Your task to perform on an android device: Open Chrome and go to settings Image 0: 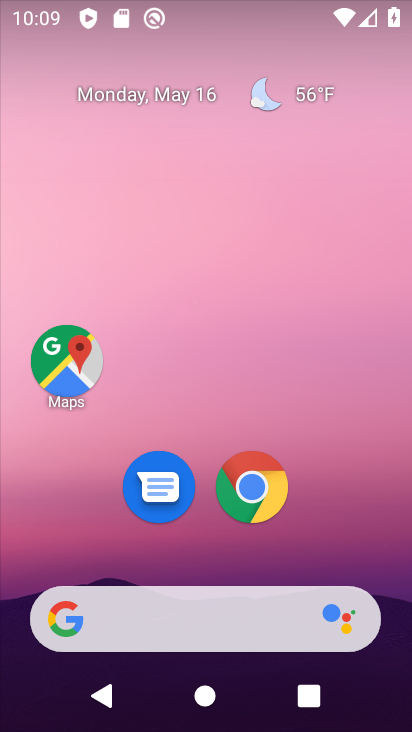
Step 0: click (256, 495)
Your task to perform on an android device: Open Chrome and go to settings Image 1: 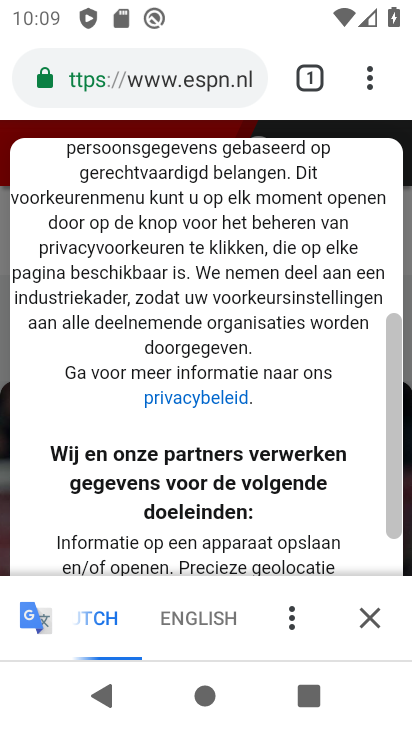
Step 1: click (373, 80)
Your task to perform on an android device: Open Chrome and go to settings Image 2: 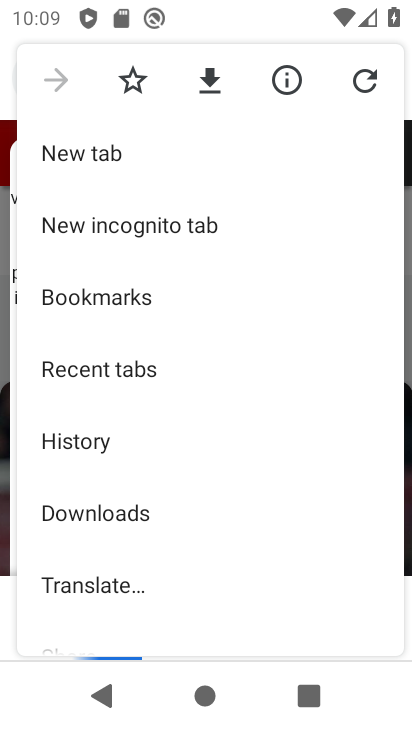
Step 2: click (124, 408)
Your task to perform on an android device: Open Chrome and go to settings Image 3: 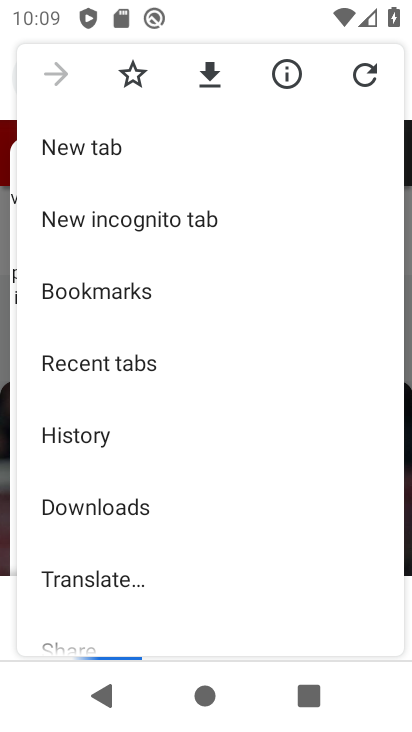
Step 3: drag from (114, 522) to (123, 448)
Your task to perform on an android device: Open Chrome and go to settings Image 4: 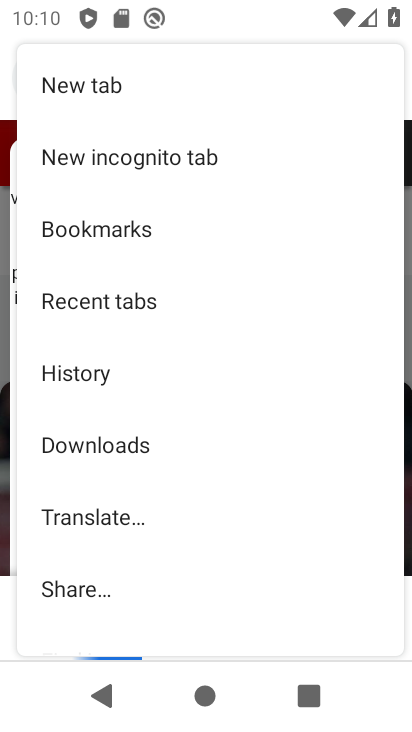
Step 4: drag from (219, 472) to (276, 284)
Your task to perform on an android device: Open Chrome and go to settings Image 5: 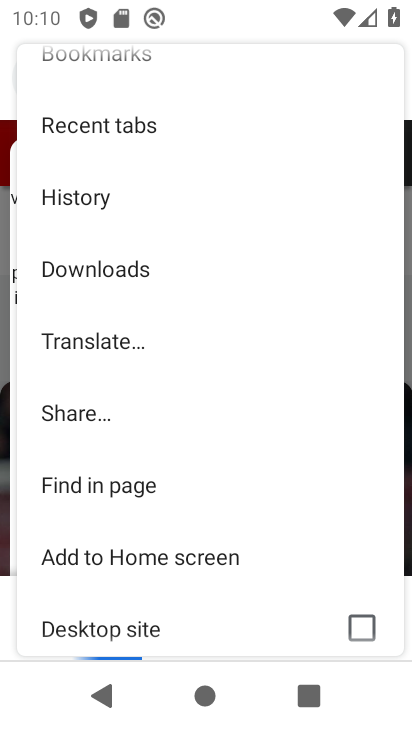
Step 5: drag from (151, 513) to (187, 320)
Your task to perform on an android device: Open Chrome and go to settings Image 6: 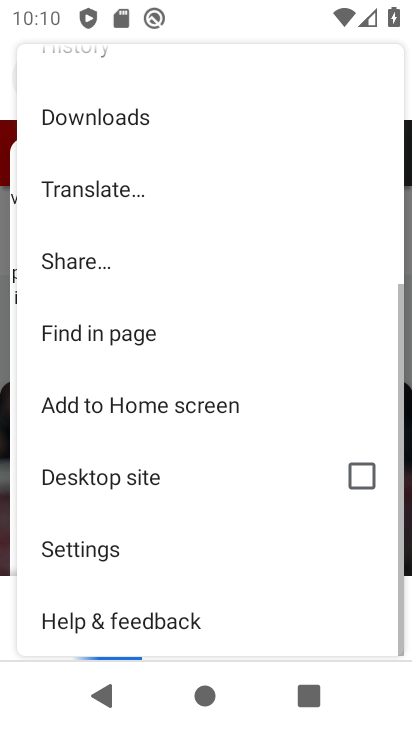
Step 6: click (119, 552)
Your task to perform on an android device: Open Chrome and go to settings Image 7: 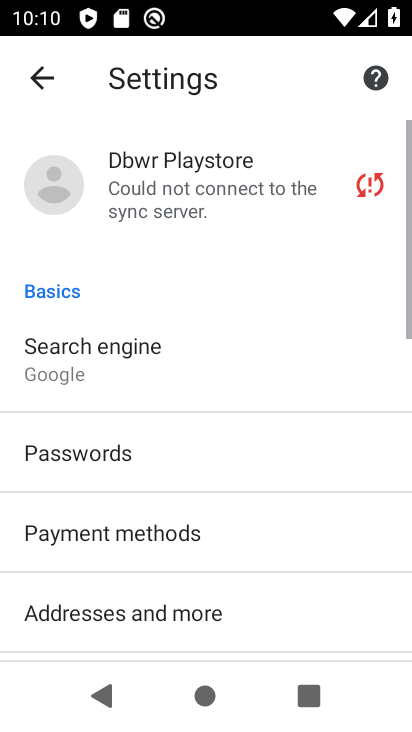
Step 7: task complete